Your task to perform on an android device: open app "Etsy: Buy & Sell Unique Items" Image 0: 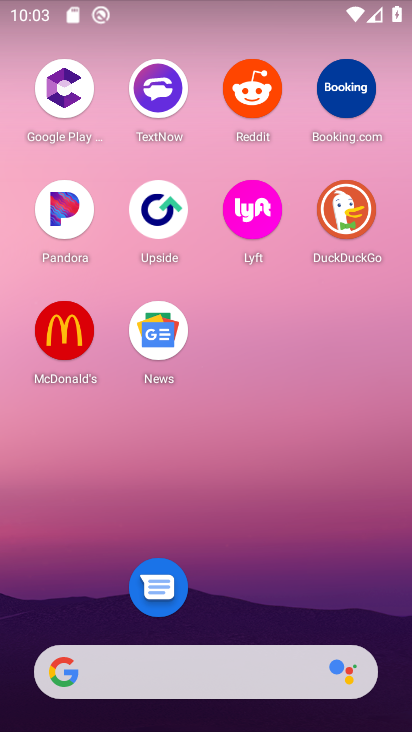
Step 0: drag from (203, 564) to (211, 103)
Your task to perform on an android device: open app "Etsy: Buy & Sell Unique Items" Image 1: 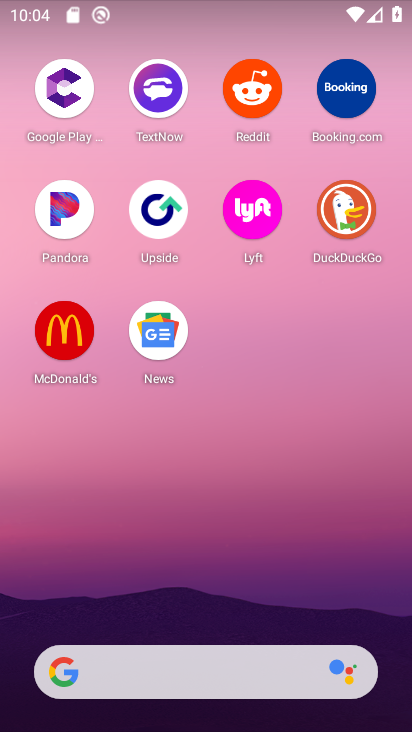
Step 1: drag from (235, 537) to (410, 219)
Your task to perform on an android device: open app "Etsy: Buy & Sell Unique Items" Image 2: 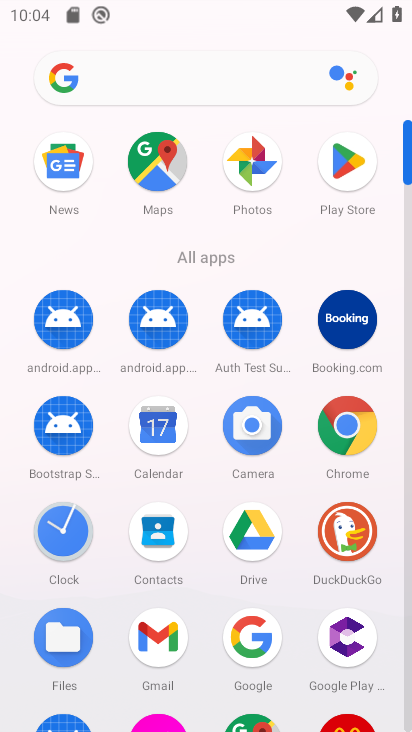
Step 2: click (342, 168)
Your task to perform on an android device: open app "Etsy: Buy & Sell Unique Items" Image 3: 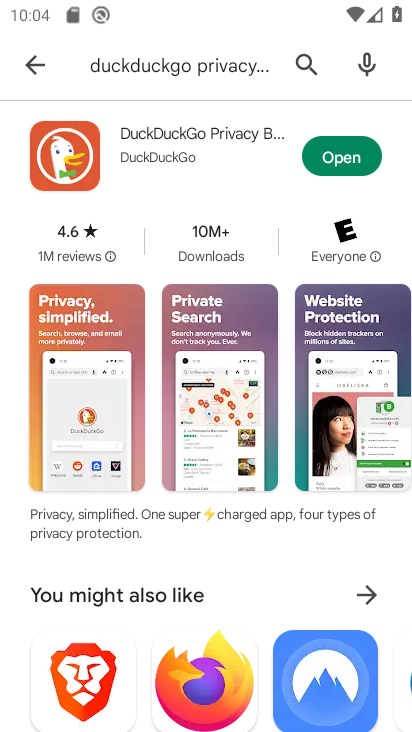
Step 3: click (40, 70)
Your task to perform on an android device: open app "Etsy: Buy & Sell Unique Items" Image 4: 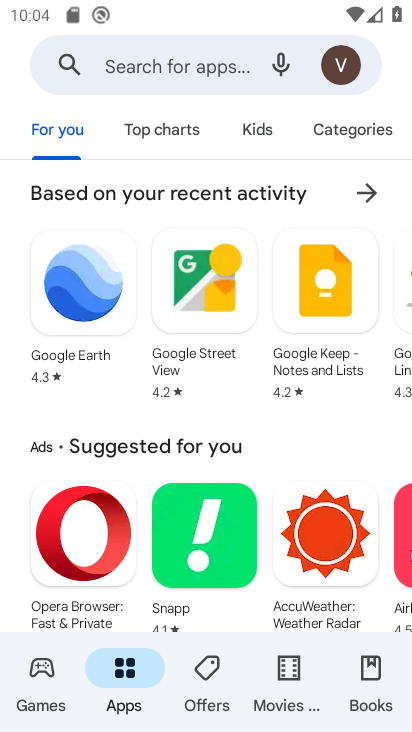
Step 4: click (116, 69)
Your task to perform on an android device: open app "Etsy: Buy & Sell Unique Items" Image 5: 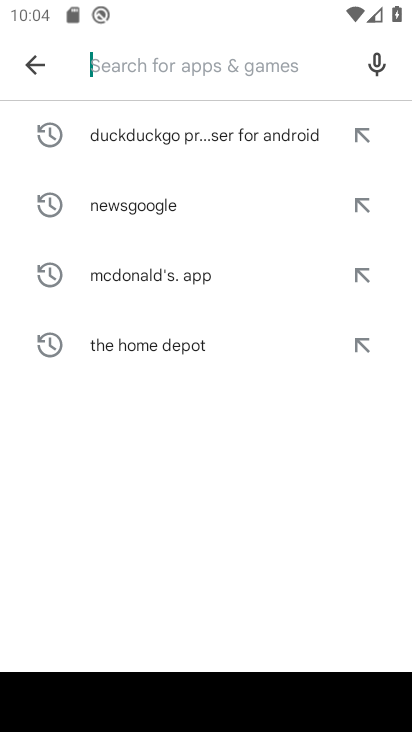
Step 5: type "Etsy"
Your task to perform on an android device: open app "Etsy: Buy & Sell Unique Items" Image 6: 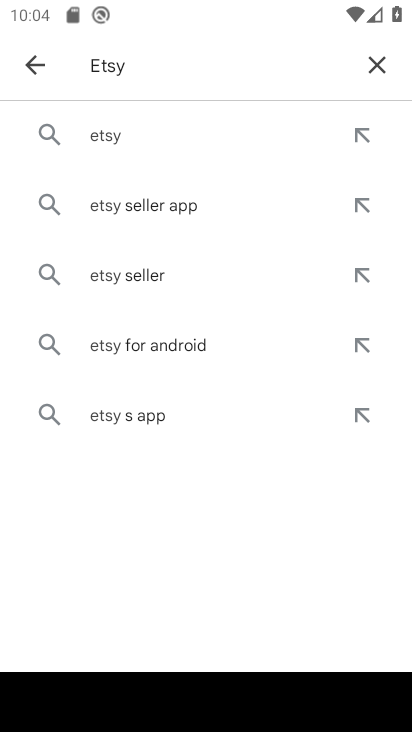
Step 6: click (109, 136)
Your task to perform on an android device: open app "Etsy: Buy & Sell Unique Items" Image 7: 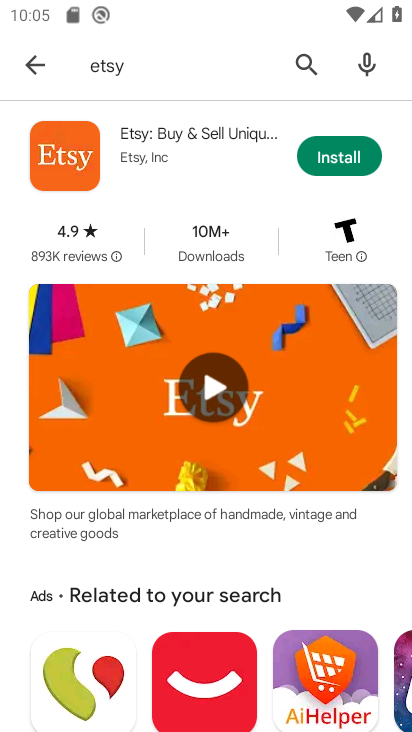
Step 7: click (331, 167)
Your task to perform on an android device: open app "Etsy: Buy & Sell Unique Items" Image 8: 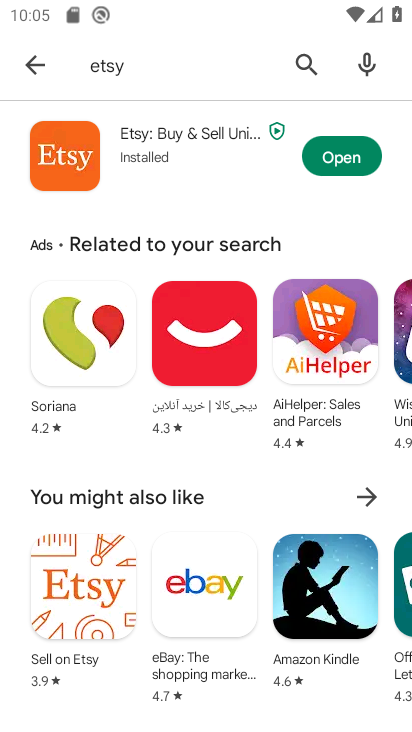
Step 8: click (331, 167)
Your task to perform on an android device: open app "Etsy: Buy & Sell Unique Items" Image 9: 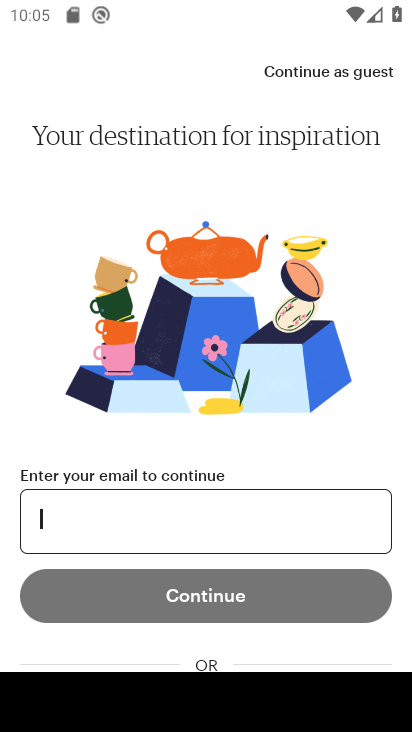
Step 9: task complete